Your task to perform on an android device: turn off improve location accuracy Image 0: 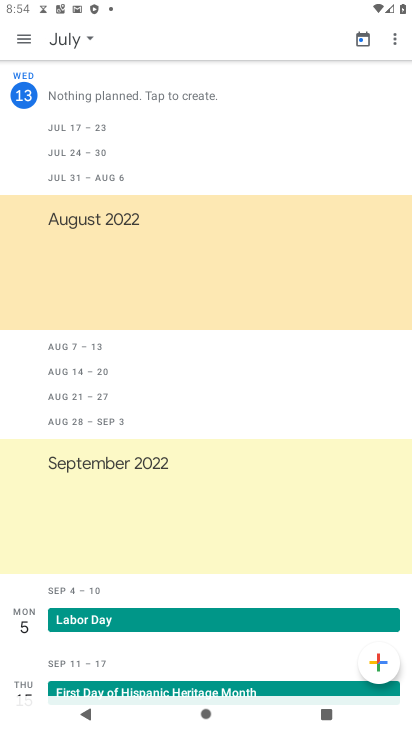
Step 0: drag from (0, 254) to (401, 248)
Your task to perform on an android device: turn off improve location accuracy Image 1: 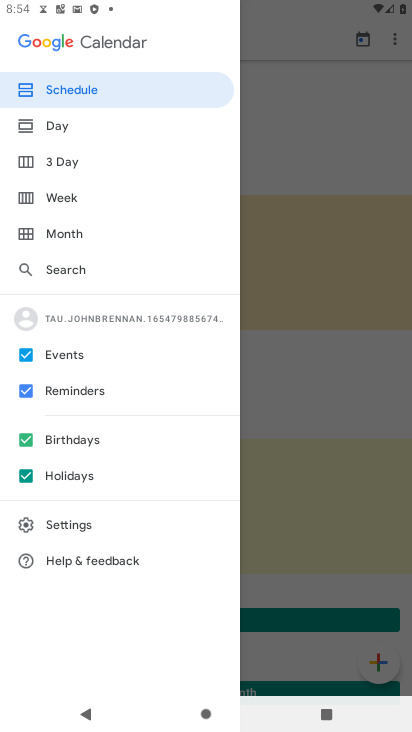
Step 1: press home button
Your task to perform on an android device: turn off improve location accuracy Image 2: 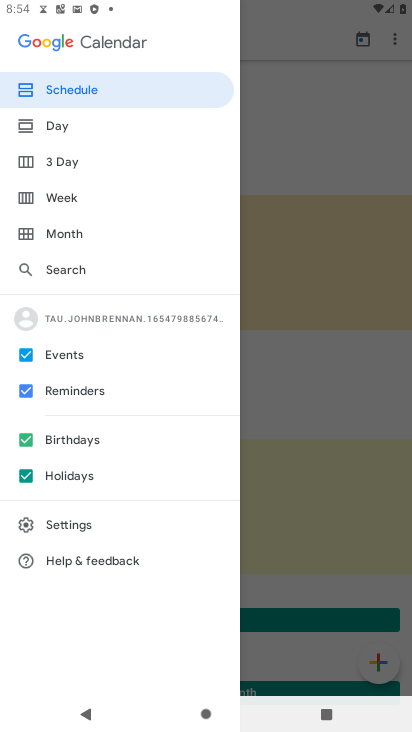
Step 2: drag from (401, 248) to (407, 476)
Your task to perform on an android device: turn off improve location accuracy Image 3: 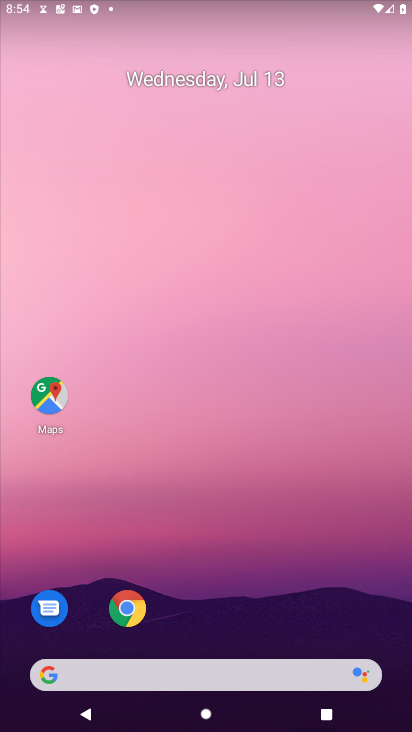
Step 3: drag from (215, 630) to (311, 59)
Your task to perform on an android device: turn off improve location accuracy Image 4: 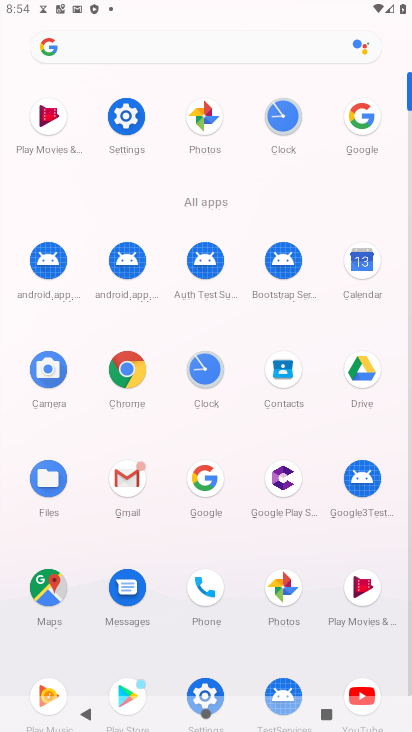
Step 4: click (202, 684)
Your task to perform on an android device: turn off improve location accuracy Image 5: 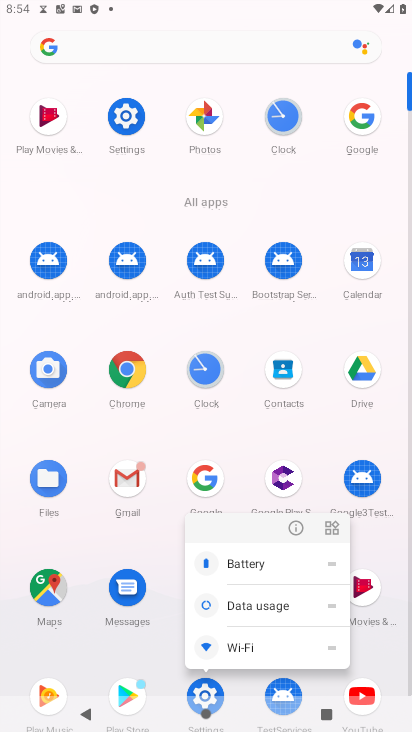
Step 5: click (202, 684)
Your task to perform on an android device: turn off improve location accuracy Image 6: 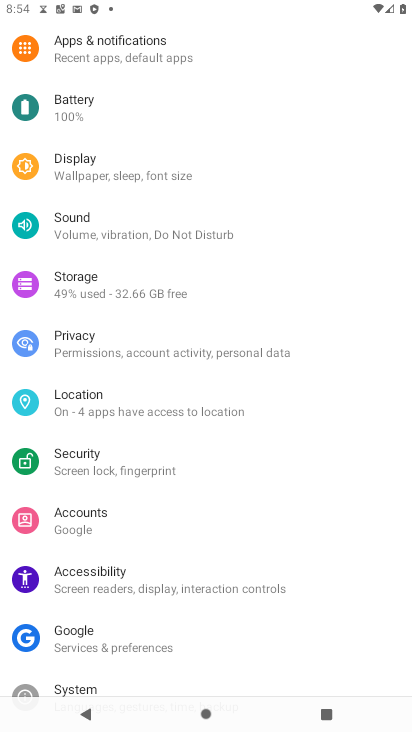
Step 6: click (105, 399)
Your task to perform on an android device: turn off improve location accuracy Image 7: 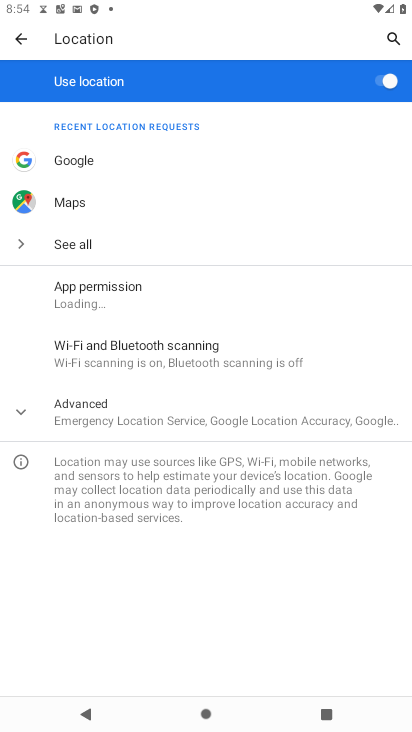
Step 7: click (170, 416)
Your task to perform on an android device: turn off improve location accuracy Image 8: 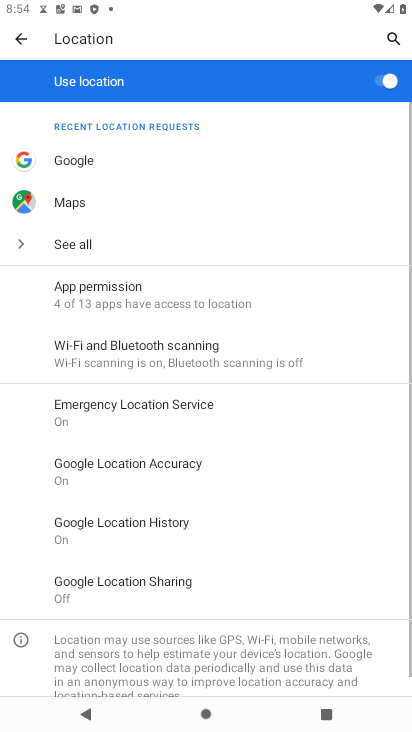
Step 8: click (156, 471)
Your task to perform on an android device: turn off improve location accuracy Image 9: 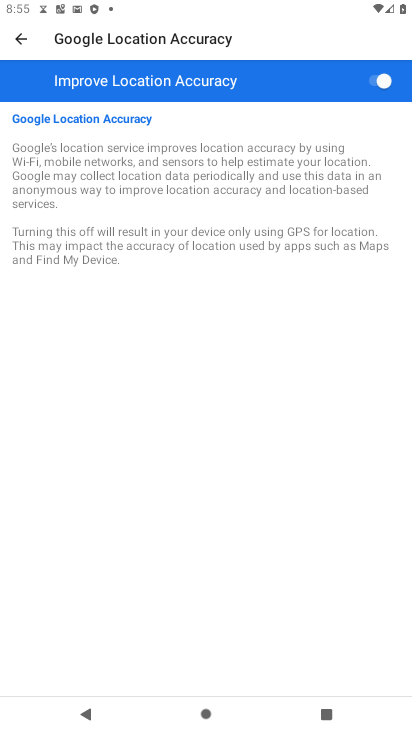
Step 9: click (372, 79)
Your task to perform on an android device: turn off improve location accuracy Image 10: 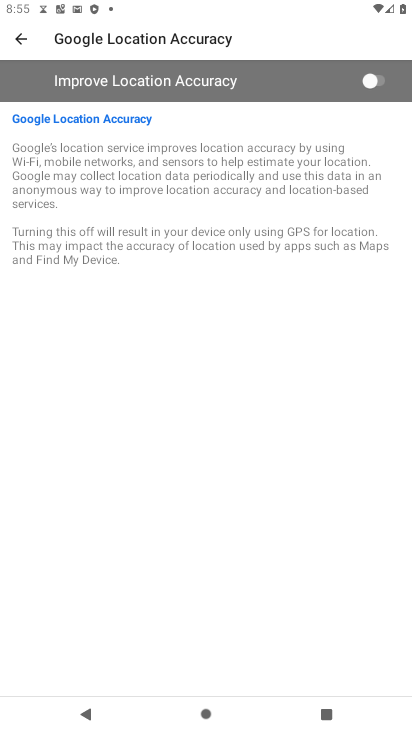
Step 10: task complete